Your task to perform on an android device: Do I have any events this weekend? Image 0: 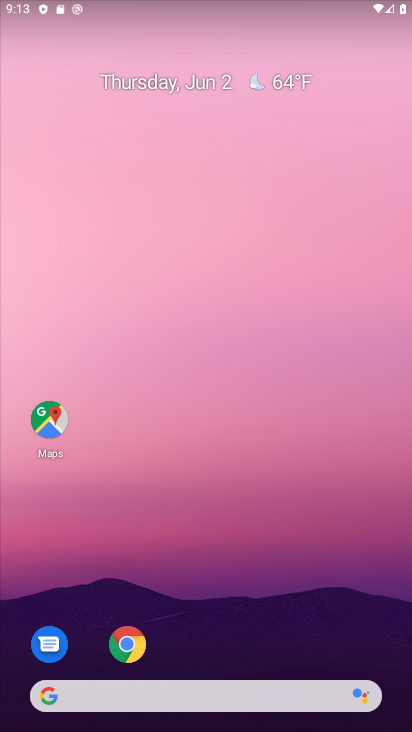
Step 0: press home button
Your task to perform on an android device: Do I have any events this weekend? Image 1: 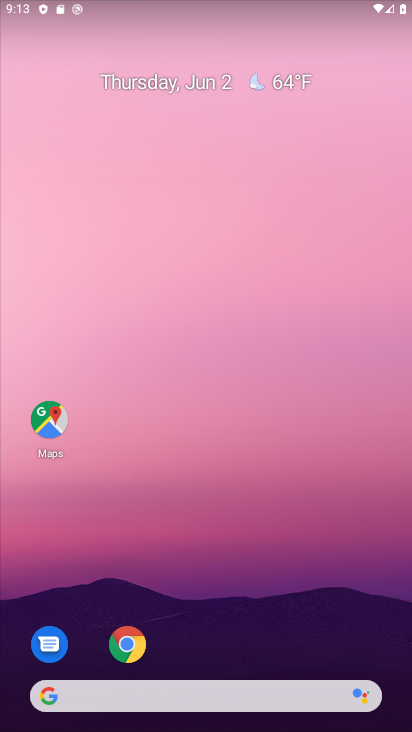
Step 1: drag from (319, 615) to (276, 236)
Your task to perform on an android device: Do I have any events this weekend? Image 2: 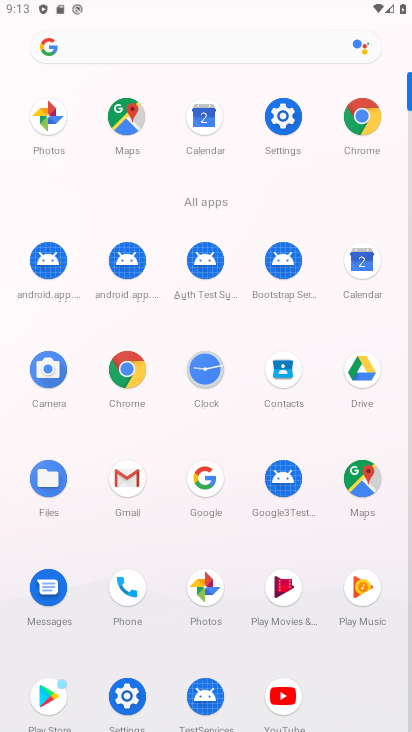
Step 2: click (367, 266)
Your task to perform on an android device: Do I have any events this weekend? Image 3: 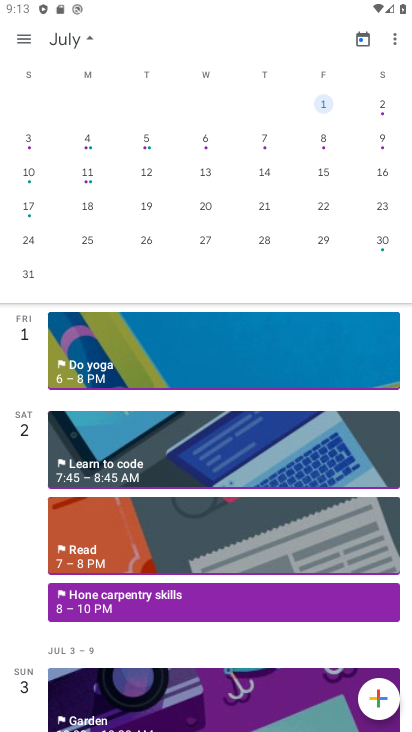
Step 3: click (86, 34)
Your task to perform on an android device: Do I have any events this weekend? Image 4: 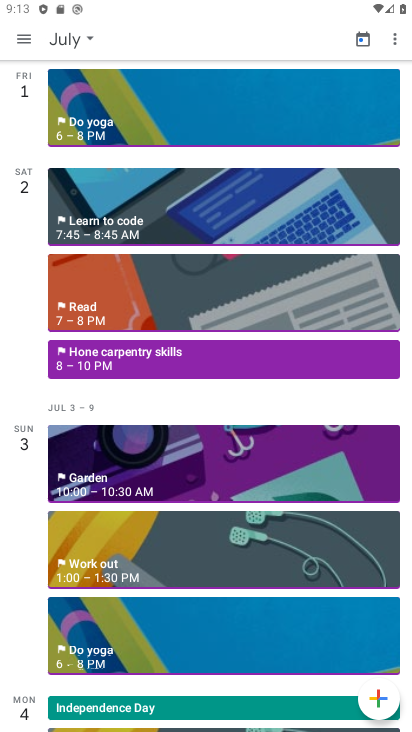
Step 4: click (84, 36)
Your task to perform on an android device: Do I have any events this weekend? Image 5: 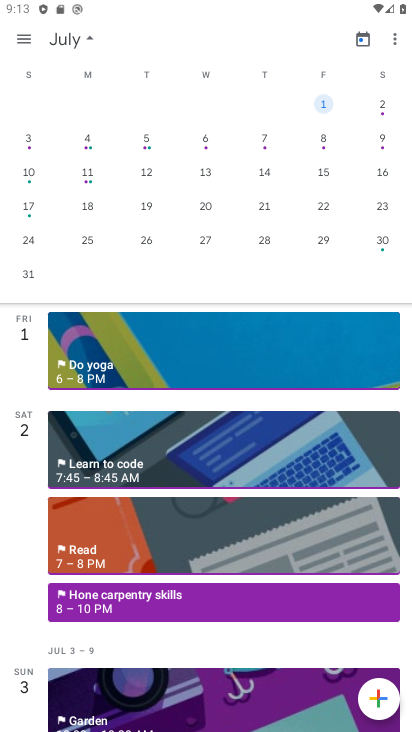
Step 5: drag from (63, 157) to (392, 201)
Your task to perform on an android device: Do I have any events this weekend? Image 6: 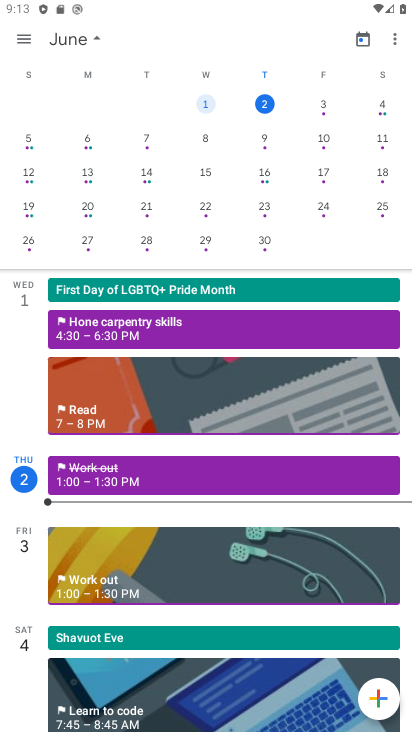
Step 6: click (388, 106)
Your task to perform on an android device: Do I have any events this weekend? Image 7: 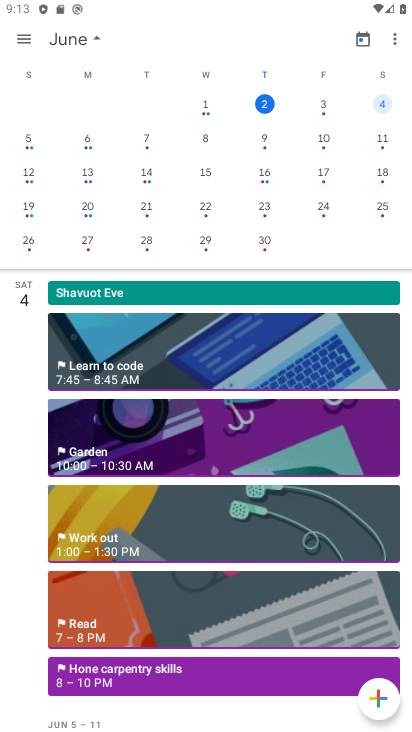
Step 7: click (98, 40)
Your task to perform on an android device: Do I have any events this weekend? Image 8: 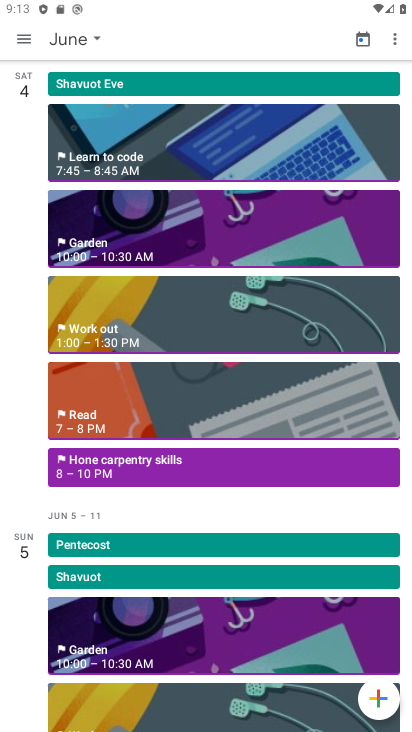
Step 8: task complete